Your task to perform on an android device: open wifi settings Image 0: 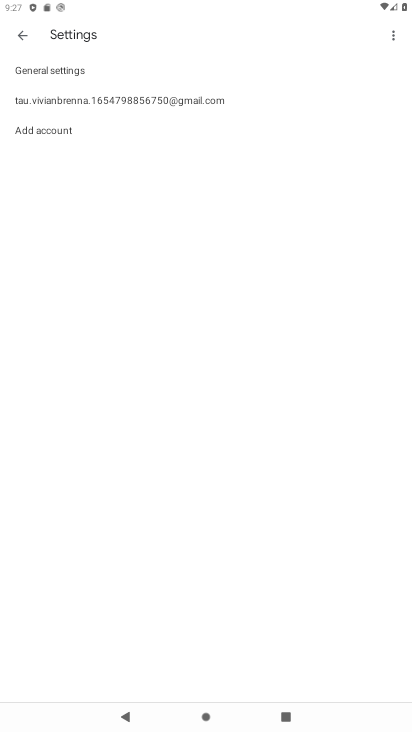
Step 0: drag from (90, 6) to (177, 375)
Your task to perform on an android device: open wifi settings Image 1: 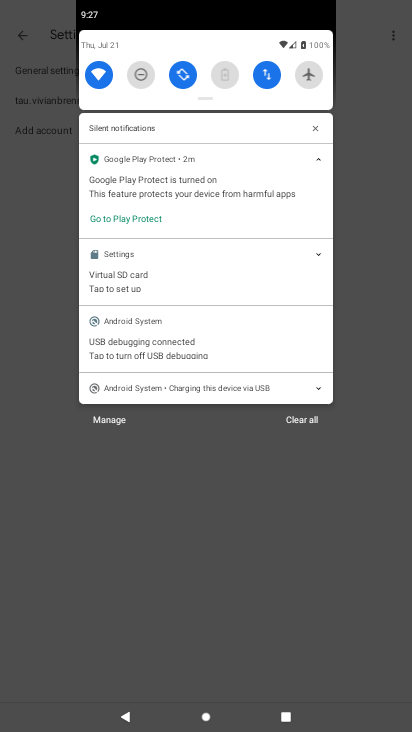
Step 1: click (97, 80)
Your task to perform on an android device: open wifi settings Image 2: 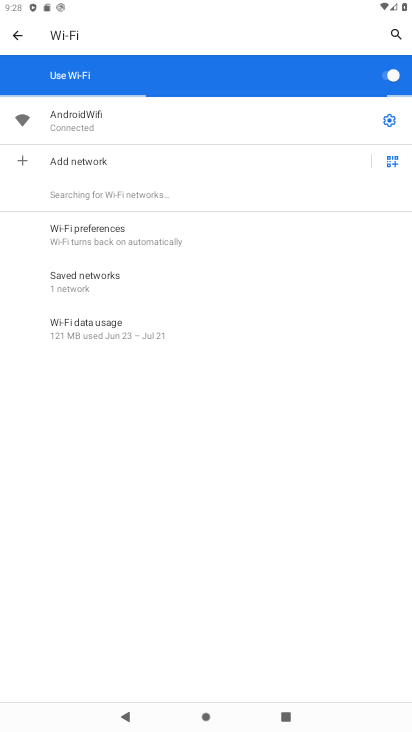
Step 2: task complete